Your task to perform on an android device: refresh tabs in the chrome app Image 0: 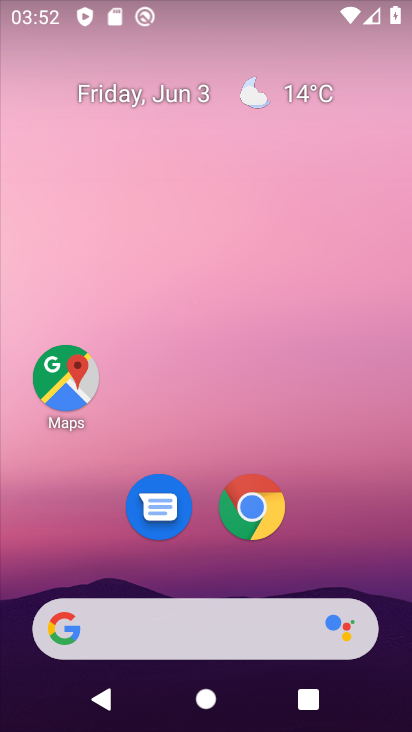
Step 0: click (250, 518)
Your task to perform on an android device: refresh tabs in the chrome app Image 1: 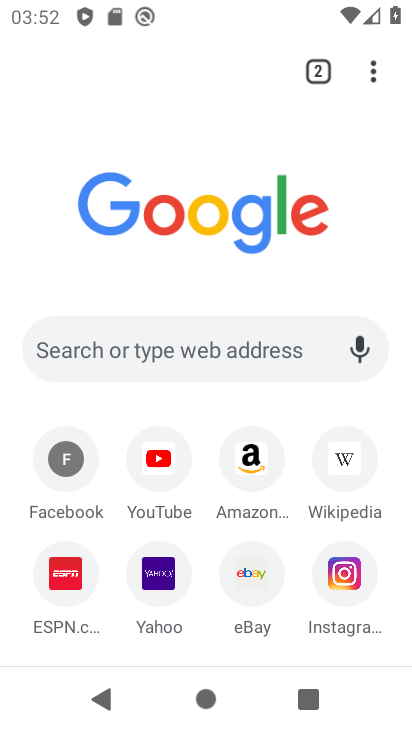
Step 1: click (369, 66)
Your task to perform on an android device: refresh tabs in the chrome app Image 2: 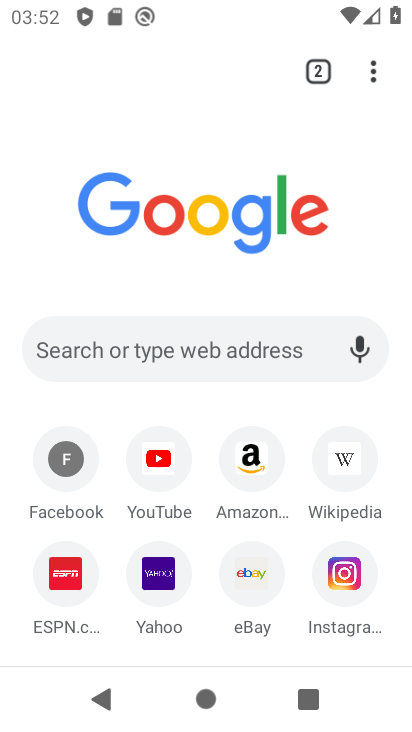
Step 2: click (373, 71)
Your task to perform on an android device: refresh tabs in the chrome app Image 3: 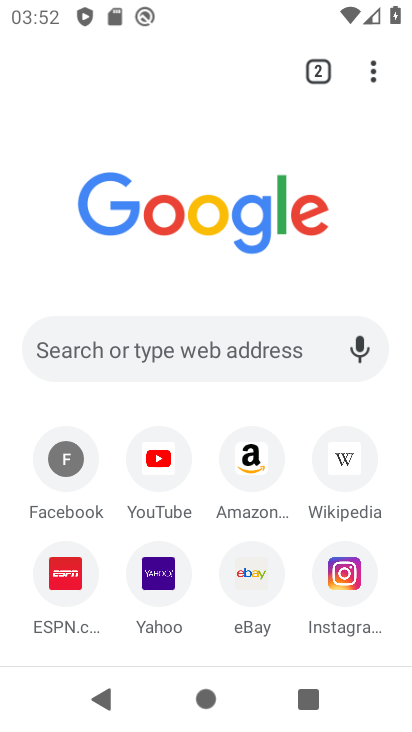
Step 3: task complete